Your task to perform on an android device: delete the emails in spam in the gmail app Image 0: 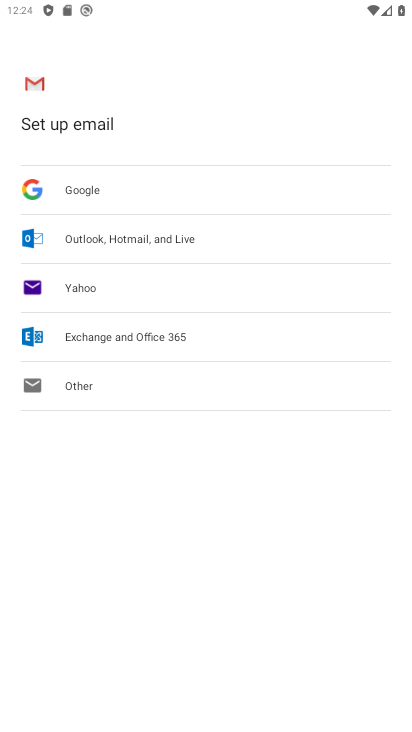
Step 0: press home button
Your task to perform on an android device: delete the emails in spam in the gmail app Image 1: 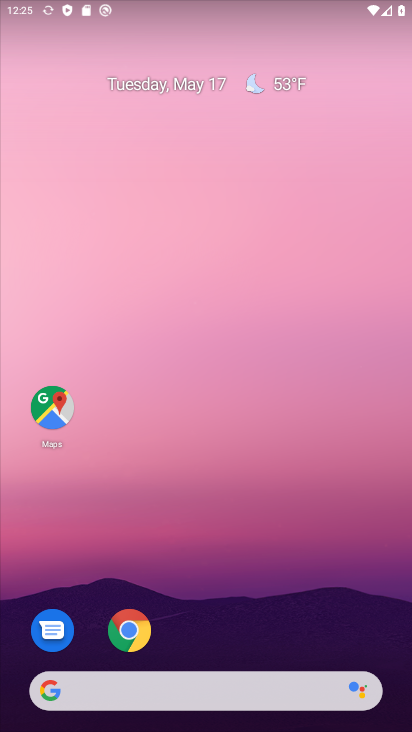
Step 1: drag from (285, 381) to (296, 184)
Your task to perform on an android device: delete the emails in spam in the gmail app Image 2: 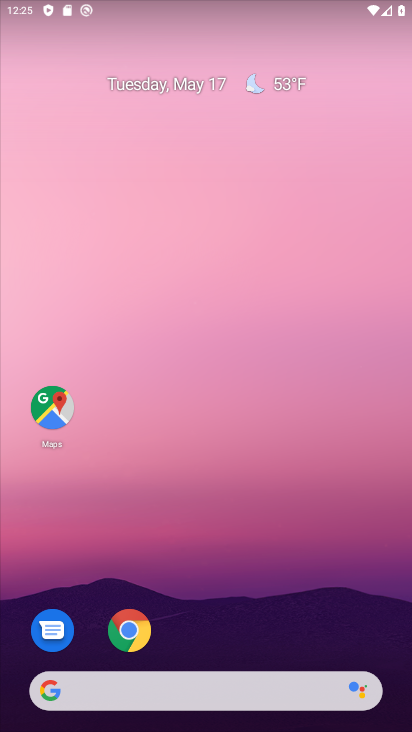
Step 2: drag from (240, 488) to (221, 132)
Your task to perform on an android device: delete the emails in spam in the gmail app Image 3: 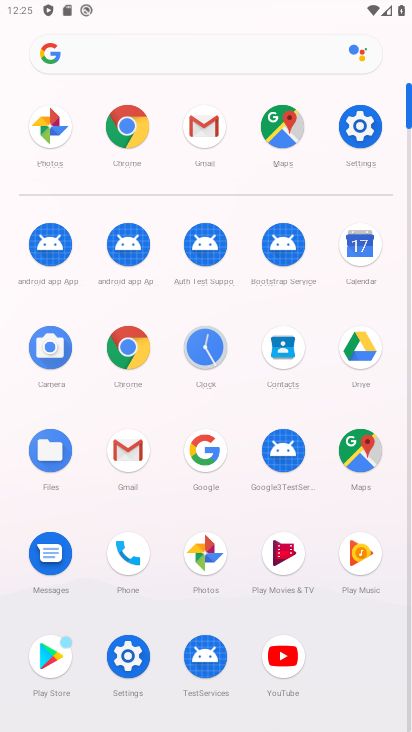
Step 3: click (198, 122)
Your task to perform on an android device: delete the emails in spam in the gmail app Image 4: 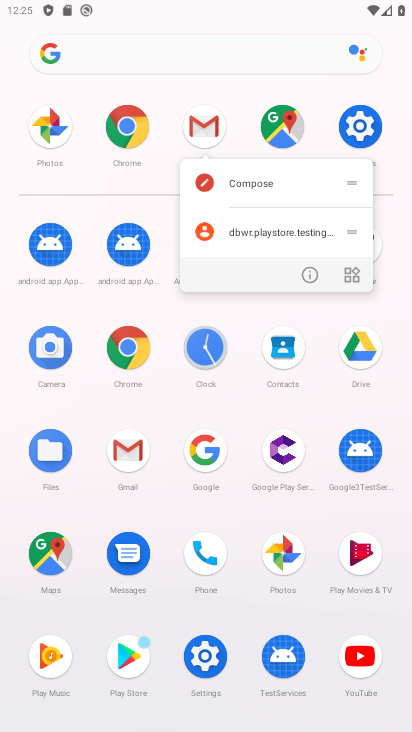
Step 4: click (138, 464)
Your task to perform on an android device: delete the emails in spam in the gmail app Image 5: 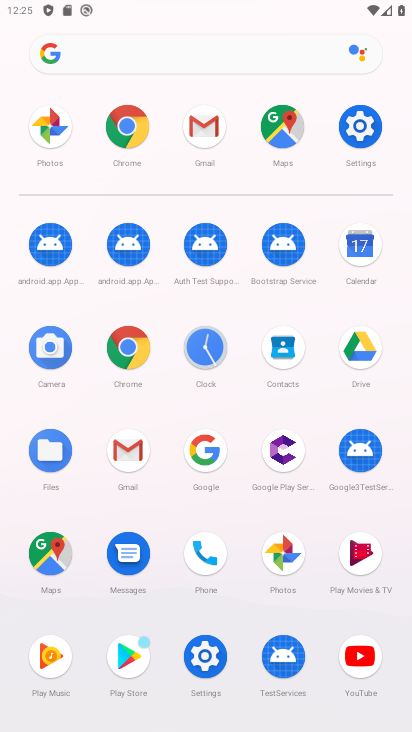
Step 5: click (119, 473)
Your task to perform on an android device: delete the emails in spam in the gmail app Image 6: 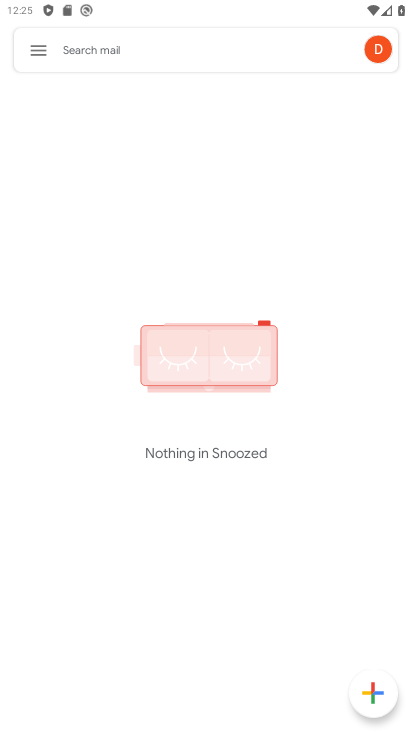
Step 6: click (33, 58)
Your task to perform on an android device: delete the emails in spam in the gmail app Image 7: 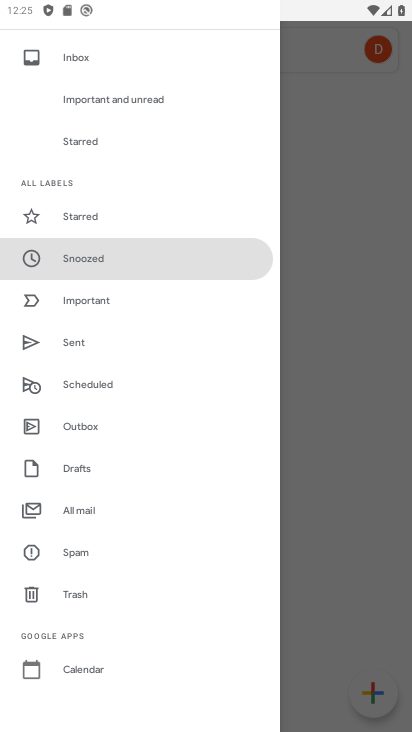
Step 7: click (79, 548)
Your task to perform on an android device: delete the emails in spam in the gmail app Image 8: 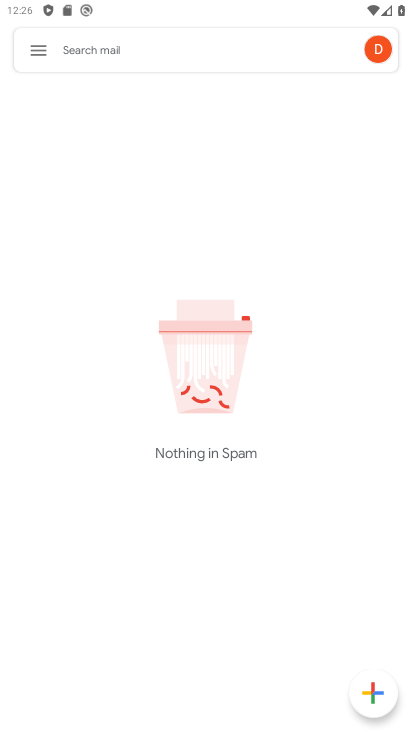
Step 8: task complete